Your task to perform on an android device: Open Amazon Image 0: 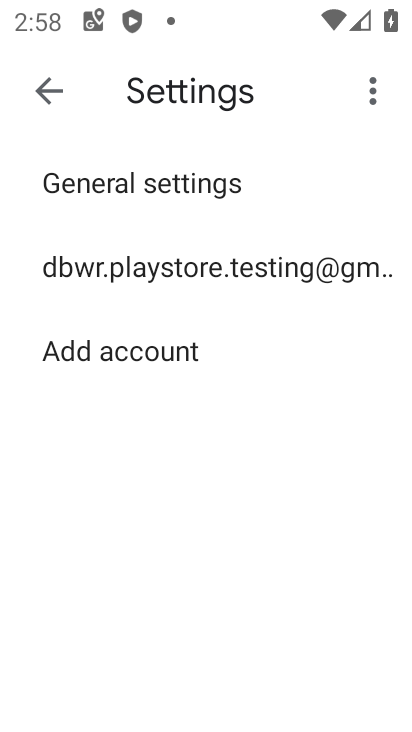
Step 0: press home button
Your task to perform on an android device: Open Amazon Image 1: 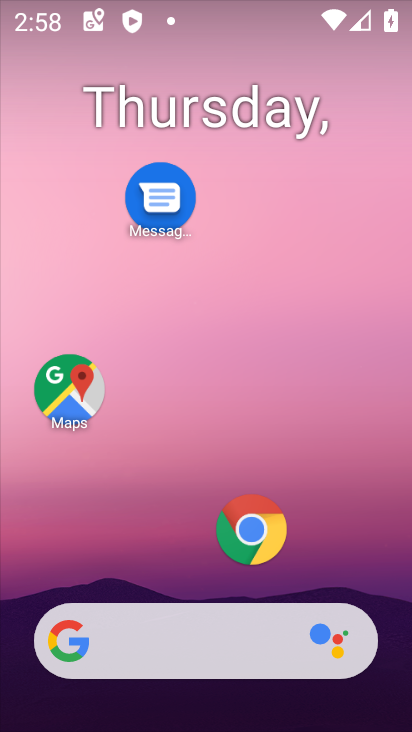
Step 1: click (239, 523)
Your task to perform on an android device: Open Amazon Image 2: 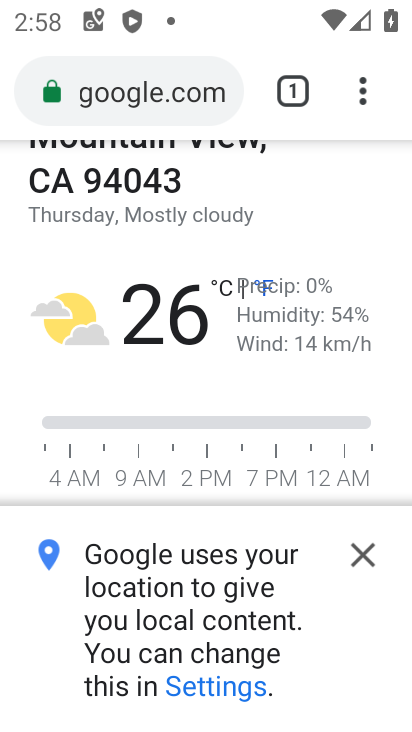
Step 2: click (124, 97)
Your task to perform on an android device: Open Amazon Image 3: 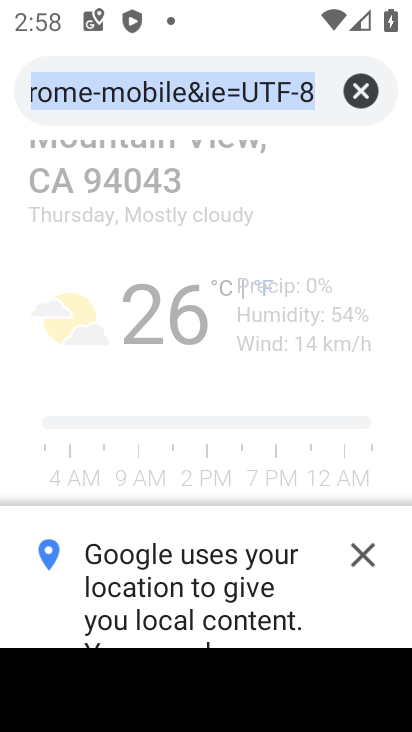
Step 3: type "Amazon"
Your task to perform on an android device: Open Amazon Image 4: 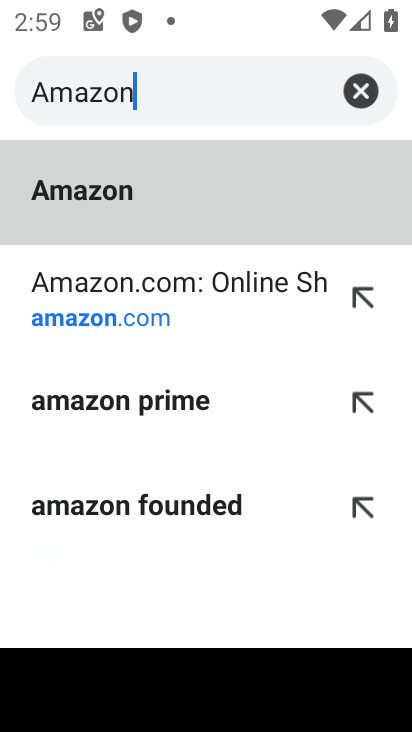
Step 4: click (111, 198)
Your task to perform on an android device: Open Amazon Image 5: 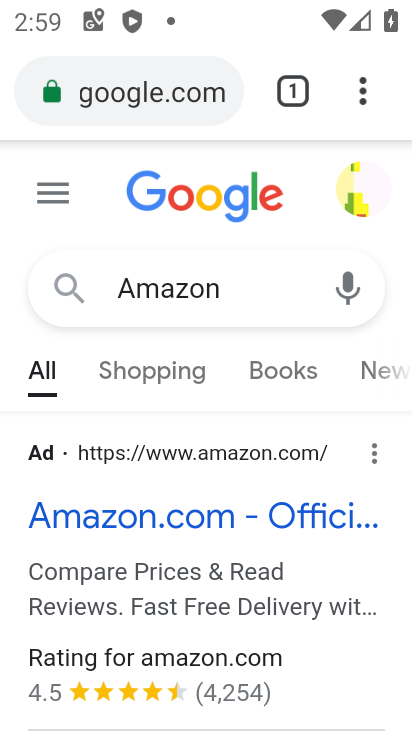
Step 5: task complete